Your task to perform on an android device: open device folders in google photos Image 0: 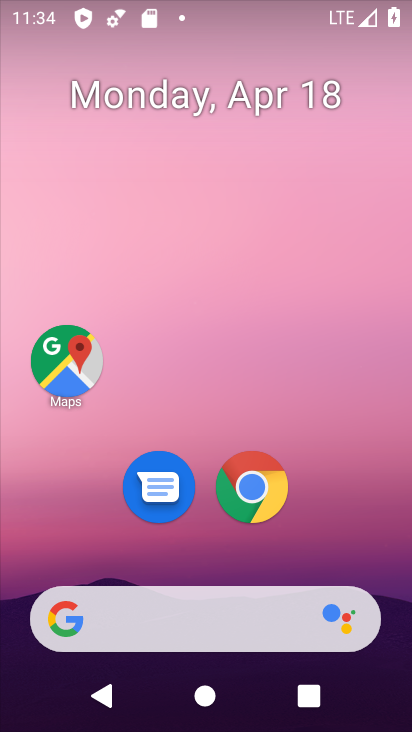
Step 0: drag from (213, 549) to (171, 31)
Your task to perform on an android device: open device folders in google photos Image 1: 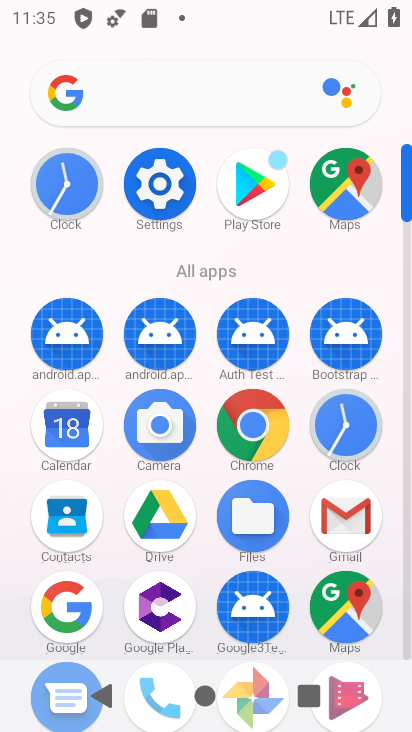
Step 1: drag from (193, 588) to (137, 261)
Your task to perform on an android device: open device folders in google photos Image 2: 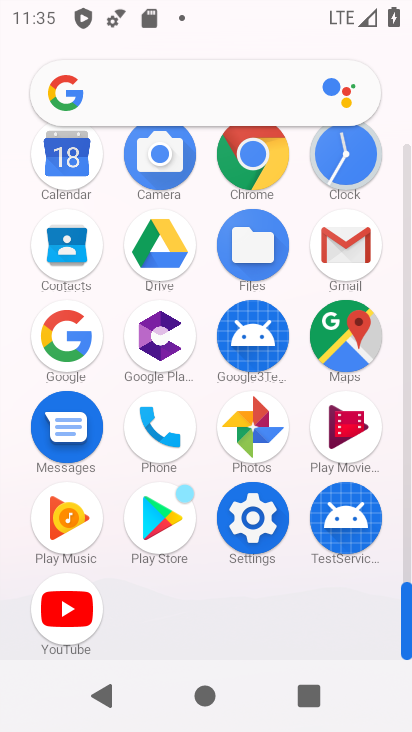
Step 2: click (243, 424)
Your task to perform on an android device: open device folders in google photos Image 3: 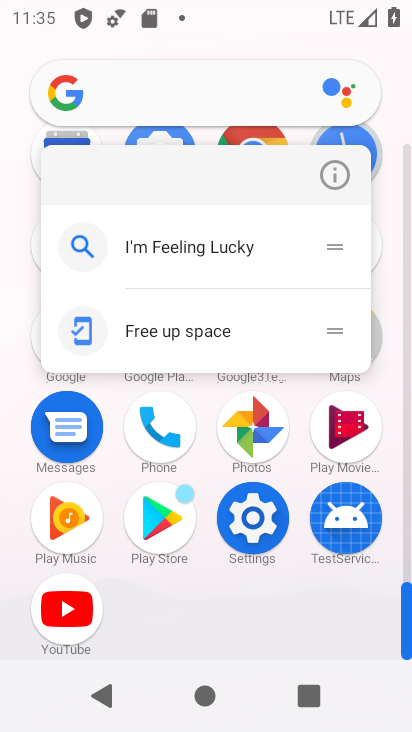
Step 3: click (259, 440)
Your task to perform on an android device: open device folders in google photos Image 4: 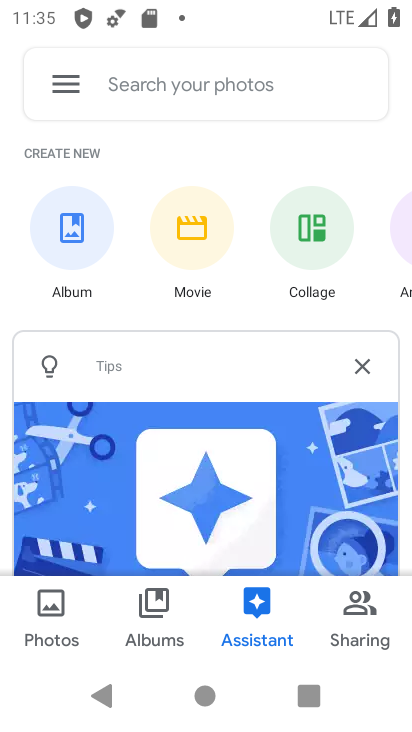
Step 4: click (57, 86)
Your task to perform on an android device: open device folders in google photos Image 5: 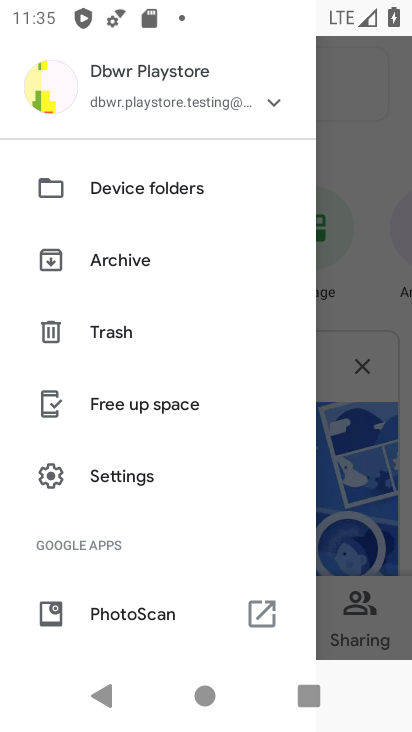
Step 5: click (121, 188)
Your task to perform on an android device: open device folders in google photos Image 6: 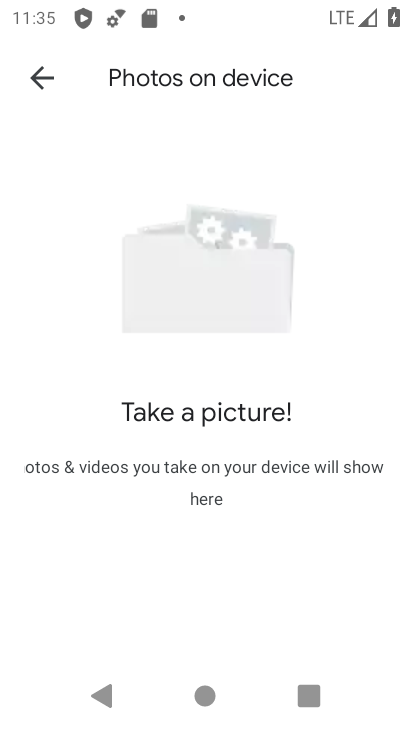
Step 6: task complete